Your task to perform on an android device: open app "Spotify: Music and Podcasts" (install if not already installed) and enter user name: "principled@inbox.com" and password: "arrests" Image 0: 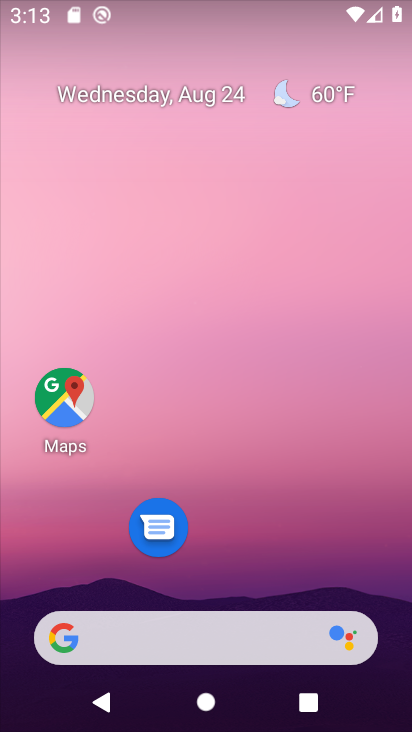
Step 0: drag from (272, 560) to (256, 1)
Your task to perform on an android device: open app "Spotify: Music and Podcasts" (install if not already installed) and enter user name: "principled@inbox.com" and password: "arrests" Image 1: 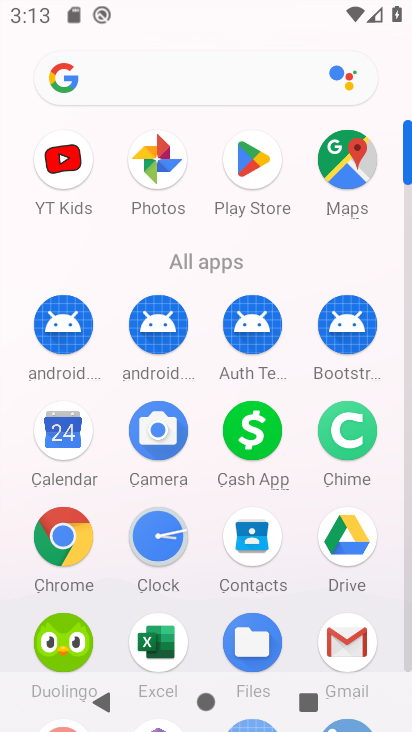
Step 1: click (267, 171)
Your task to perform on an android device: open app "Spotify: Music and Podcasts" (install if not already installed) and enter user name: "principled@inbox.com" and password: "arrests" Image 2: 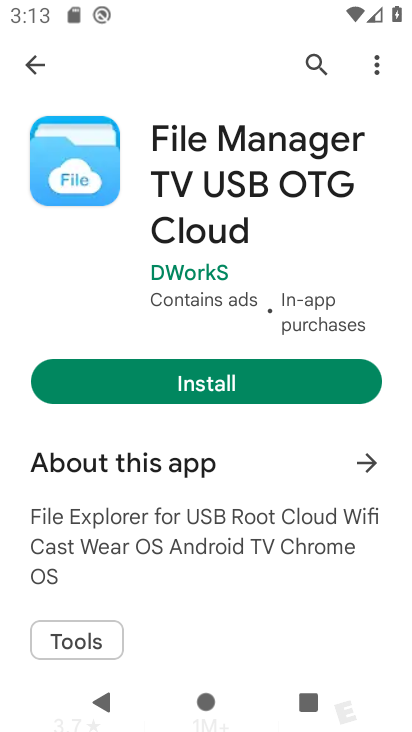
Step 2: click (314, 79)
Your task to perform on an android device: open app "Spotify: Music and Podcasts" (install if not already installed) and enter user name: "principled@inbox.com" and password: "arrests" Image 3: 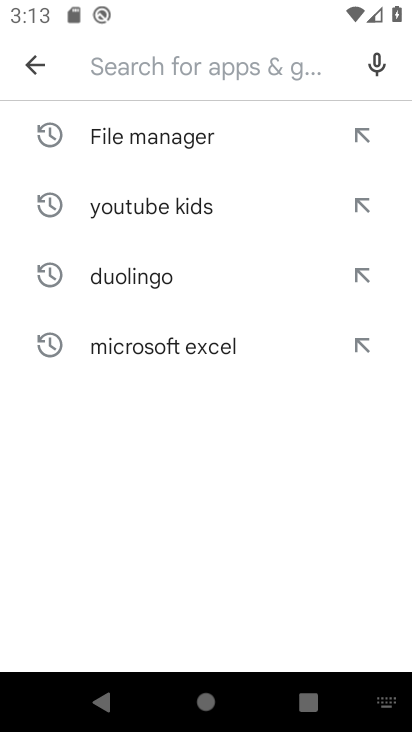
Step 3: type "spotify"
Your task to perform on an android device: open app "Spotify: Music and Podcasts" (install if not already installed) and enter user name: "principled@inbox.com" and password: "arrests" Image 4: 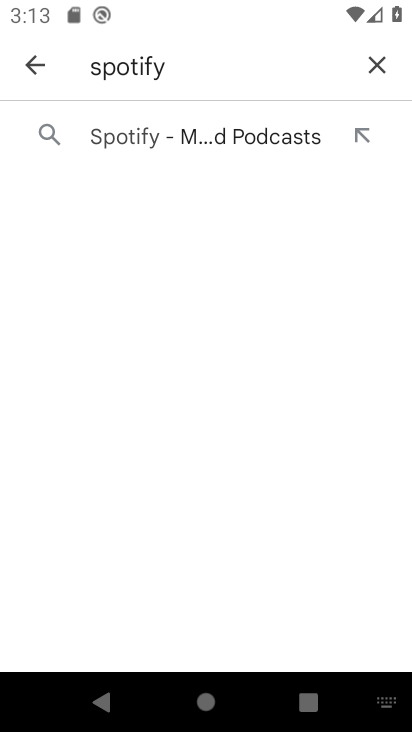
Step 4: click (118, 137)
Your task to perform on an android device: open app "Spotify: Music and Podcasts" (install if not already installed) and enter user name: "principled@inbox.com" and password: "arrests" Image 5: 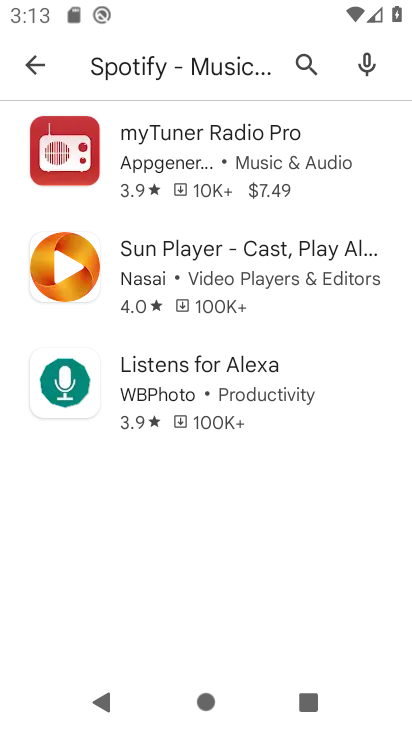
Step 5: task complete